Your task to perform on an android device: set the stopwatch Image 0: 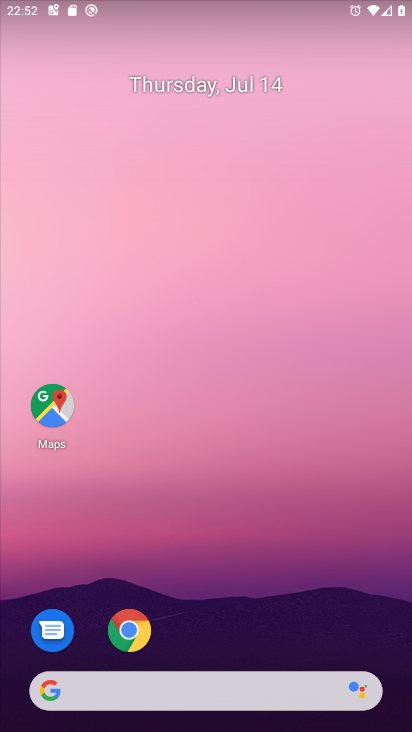
Step 0: drag from (184, 613) to (274, 88)
Your task to perform on an android device: set the stopwatch Image 1: 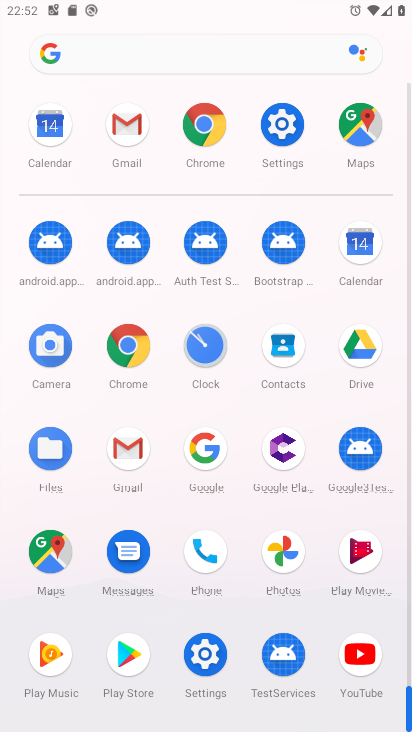
Step 1: click (202, 340)
Your task to perform on an android device: set the stopwatch Image 2: 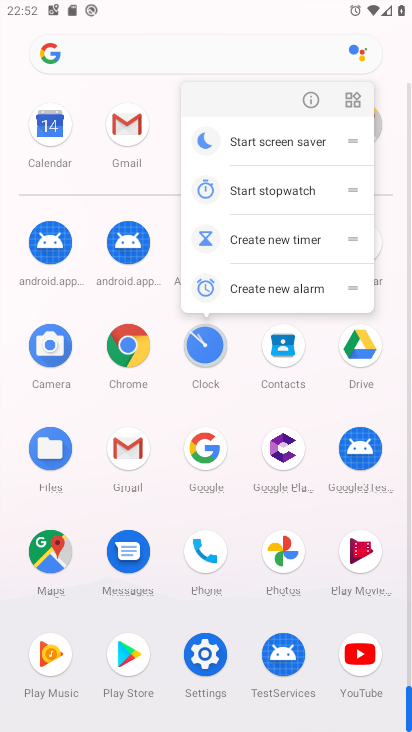
Step 2: click (314, 89)
Your task to perform on an android device: set the stopwatch Image 3: 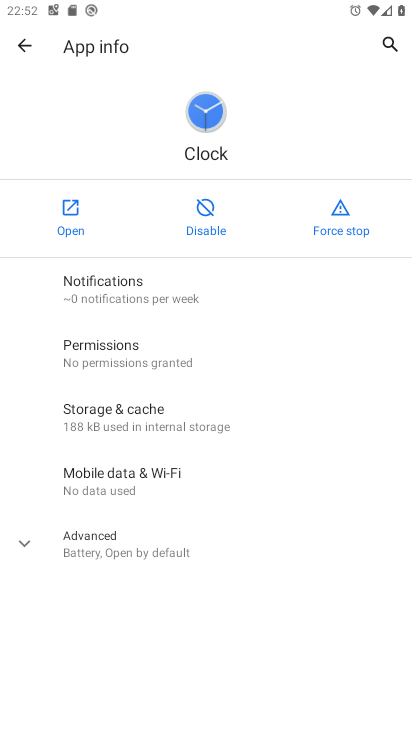
Step 3: click (73, 198)
Your task to perform on an android device: set the stopwatch Image 4: 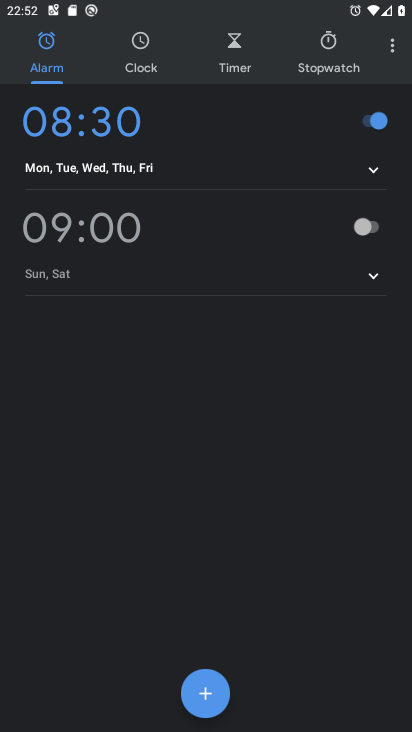
Step 4: click (327, 64)
Your task to perform on an android device: set the stopwatch Image 5: 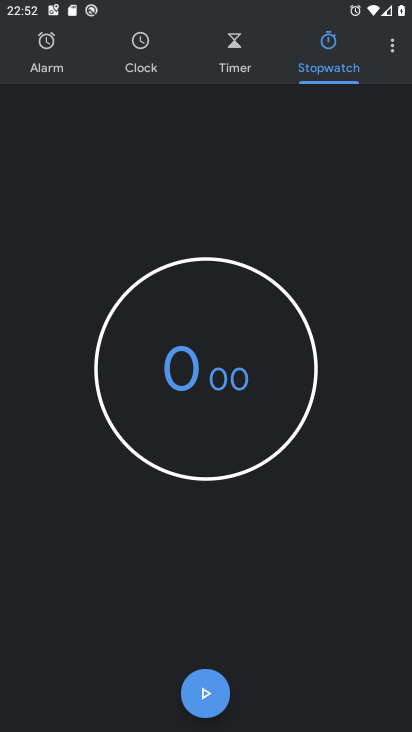
Step 5: click (192, 682)
Your task to perform on an android device: set the stopwatch Image 6: 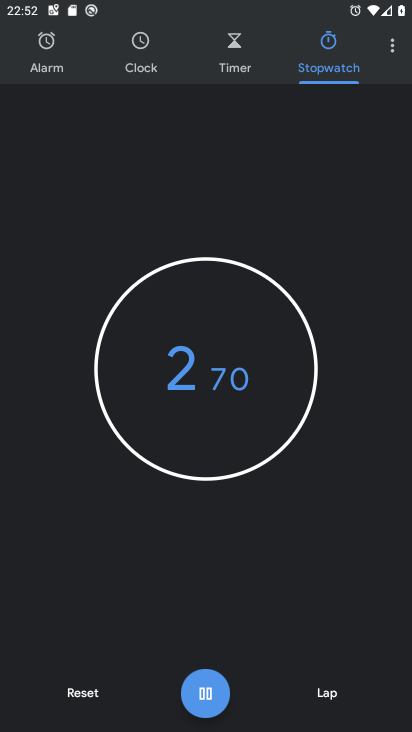
Step 6: task complete